Your task to perform on an android device: What's on my calendar tomorrow? Image 0: 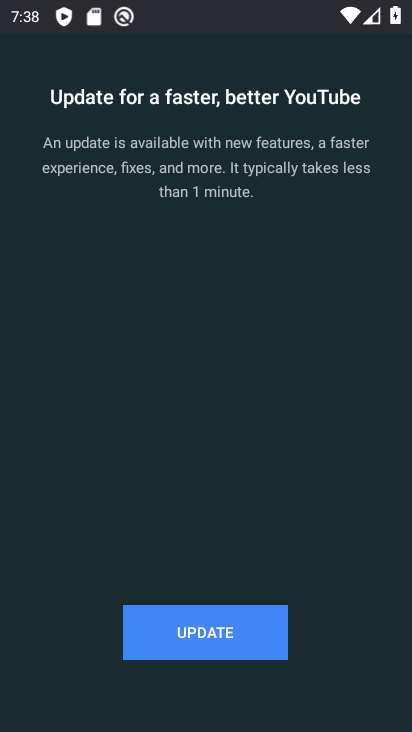
Step 0: click (377, 605)
Your task to perform on an android device: What's on my calendar tomorrow? Image 1: 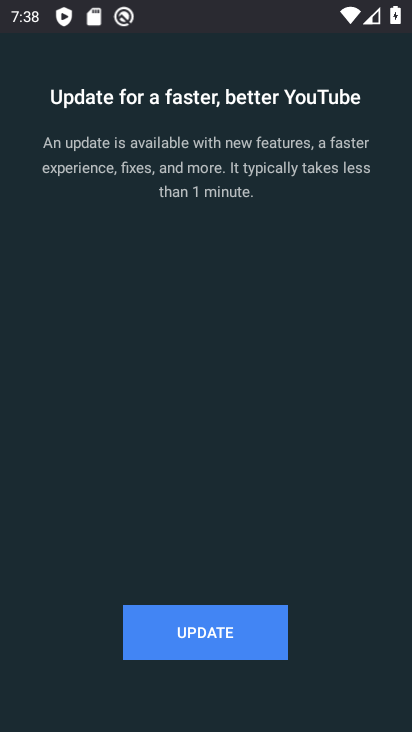
Step 1: press home button
Your task to perform on an android device: What's on my calendar tomorrow? Image 2: 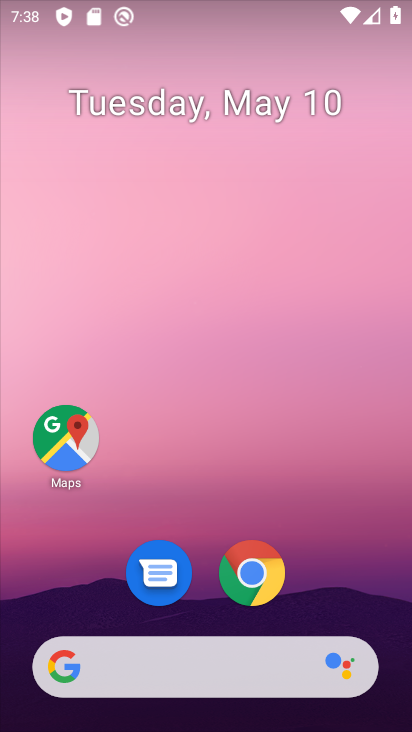
Step 2: drag from (370, 582) to (368, 120)
Your task to perform on an android device: What's on my calendar tomorrow? Image 3: 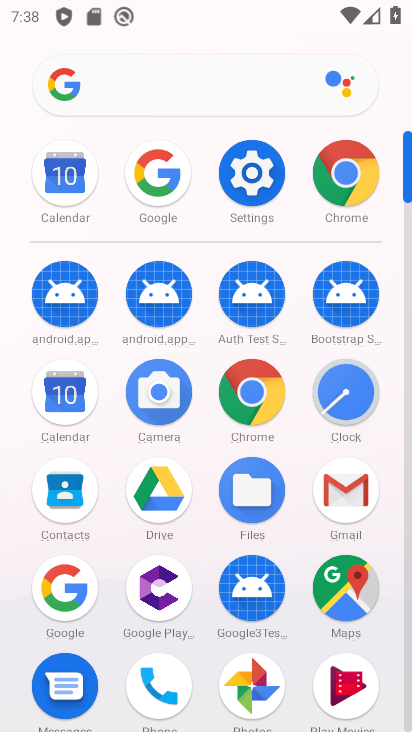
Step 3: click (58, 390)
Your task to perform on an android device: What's on my calendar tomorrow? Image 4: 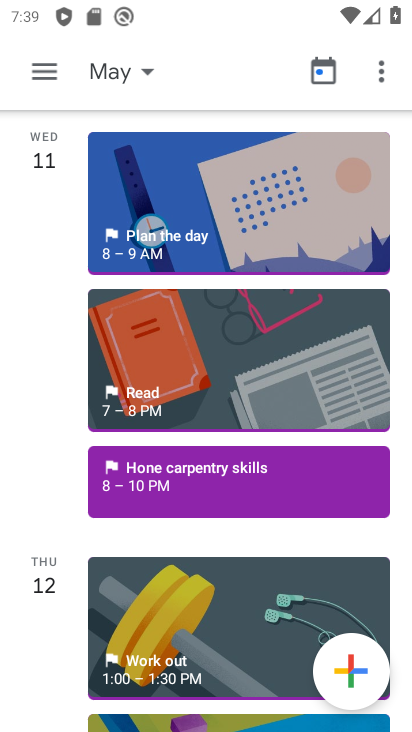
Step 4: task complete